Your task to perform on an android device: Go to Amazon Image 0: 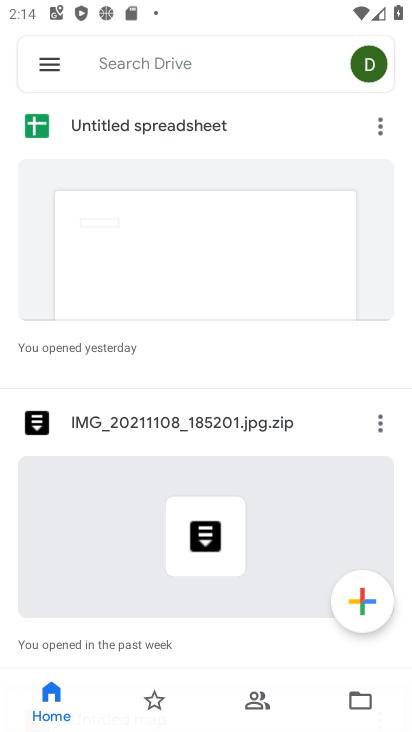
Step 0: press home button
Your task to perform on an android device: Go to Amazon Image 1: 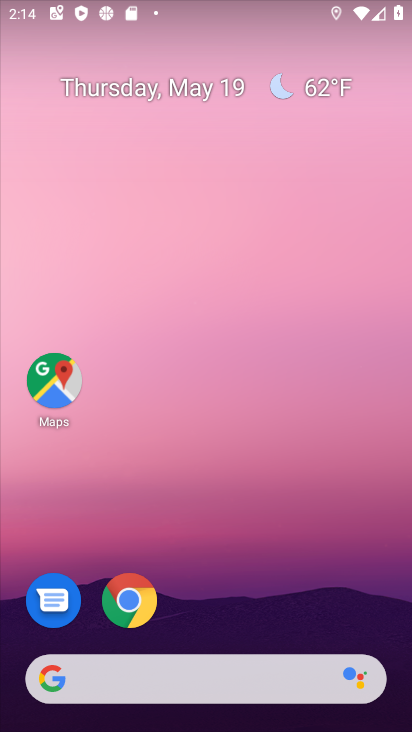
Step 1: click (123, 682)
Your task to perform on an android device: Go to Amazon Image 2: 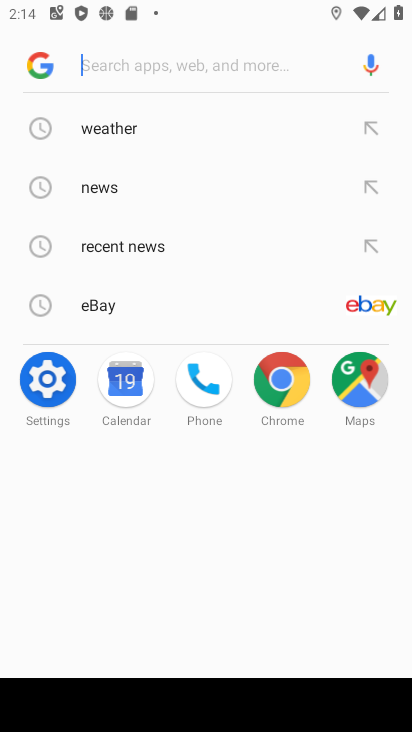
Step 2: press home button
Your task to perform on an android device: Go to Amazon Image 3: 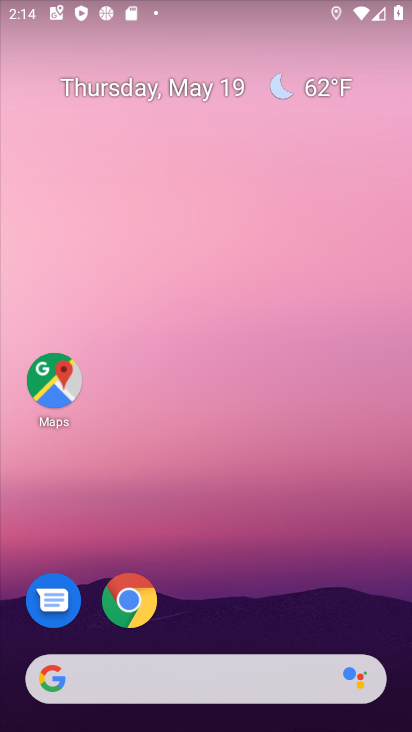
Step 3: click (127, 598)
Your task to perform on an android device: Go to Amazon Image 4: 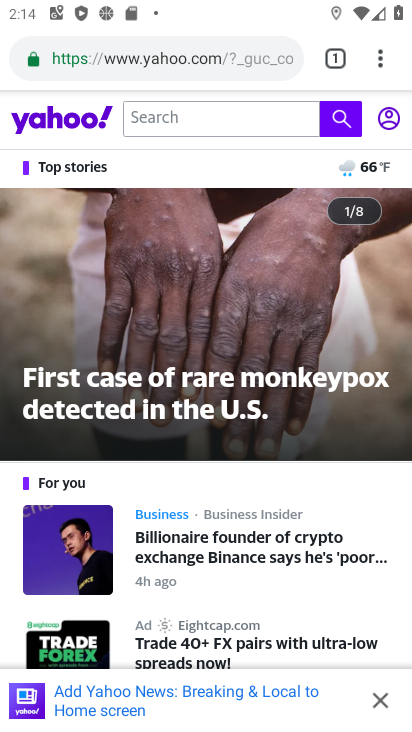
Step 4: click (335, 68)
Your task to perform on an android device: Go to Amazon Image 5: 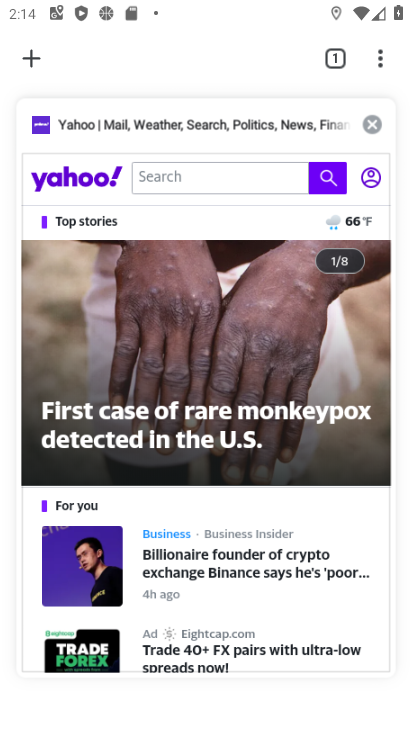
Step 5: click (22, 53)
Your task to perform on an android device: Go to Amazon Image 6: 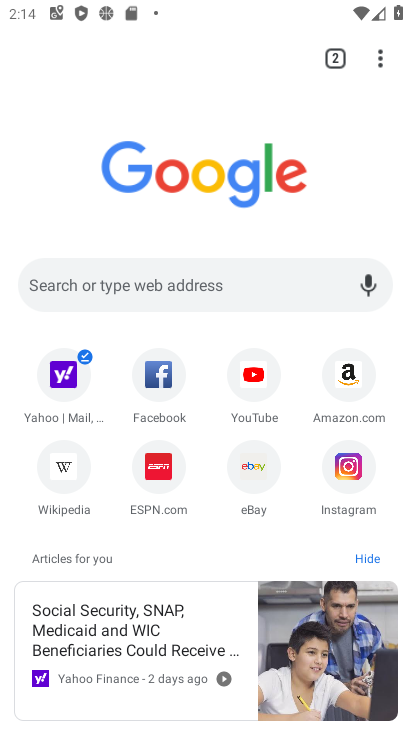
Step 6: click (339, 376)
Your task to perform on an android device: Go to Amazon Image 7: 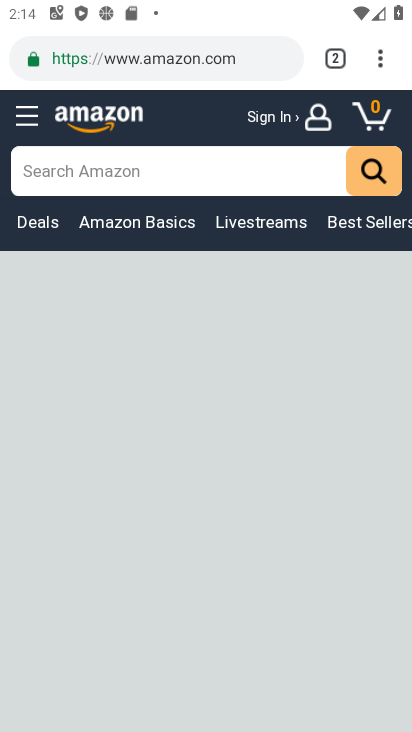
Step 7: click (326, 67)
Your task to perform on an android device: Go to Amazon Image 8: 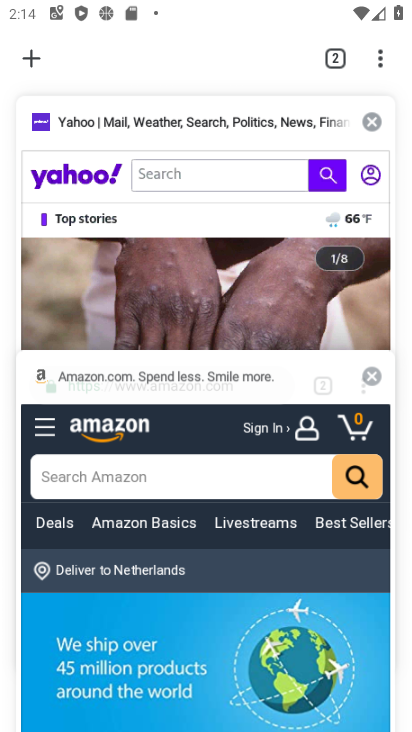
Step 8: click (35, 53)
Your task to perform on an android device: Go to Amazon Image 9: 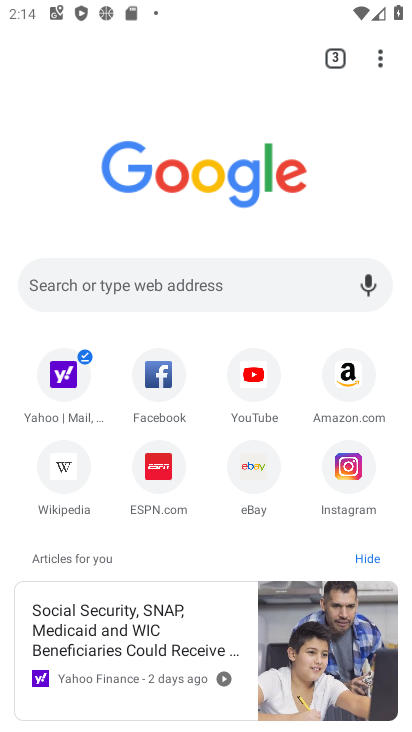
Step 9: click (335, 59)
Your task to perform on an android device: Go to Amazon Image 10: 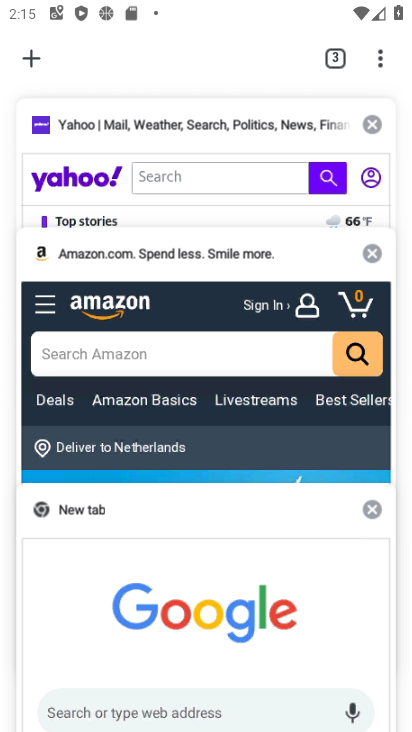
Step 10: click (369, 516)
Your task to perform on an android device: Go to Amazon Image 11: 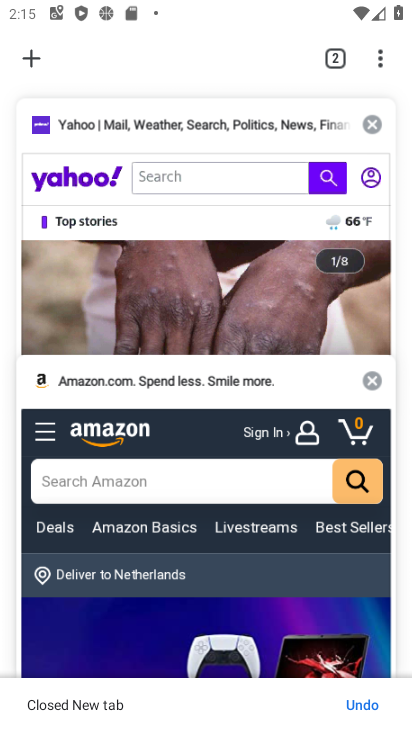
Step 11: click (166, 569)
Your task to perform on an android device: Go to Amazon Image 12: 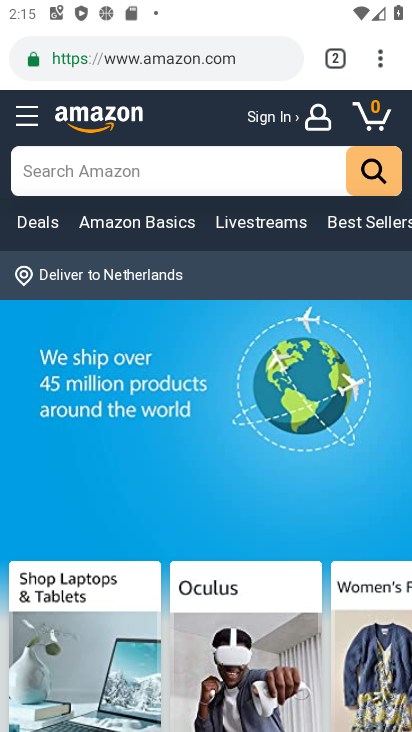
Step 12: task complete